Your task to perform on an android device: Turn on the flashlight Image 0: 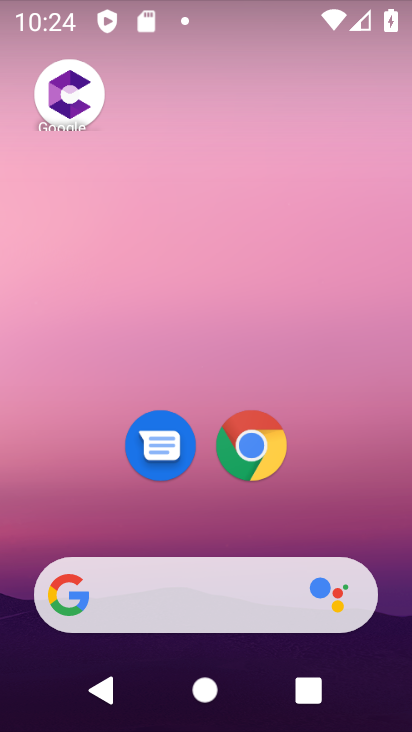
Step 0: drag from (218, 376) to (254, 176)
Your task to perform on an android device: Turn on the flashlight Image 1: 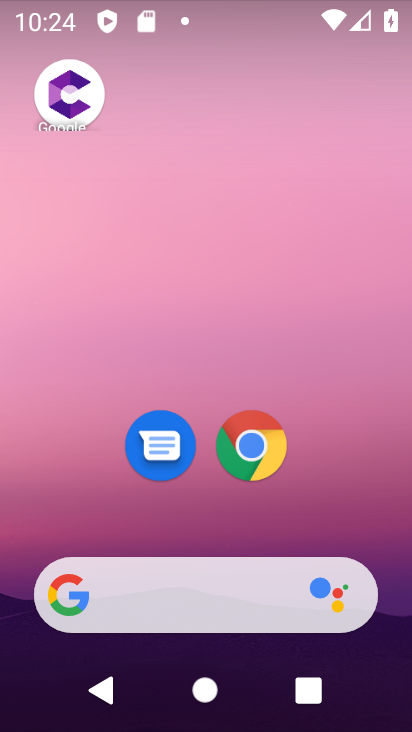
Step 1: drag from (205, 517) to (295, 99)
Your task to perform on an android device: Turn on the flashlight Image 2: 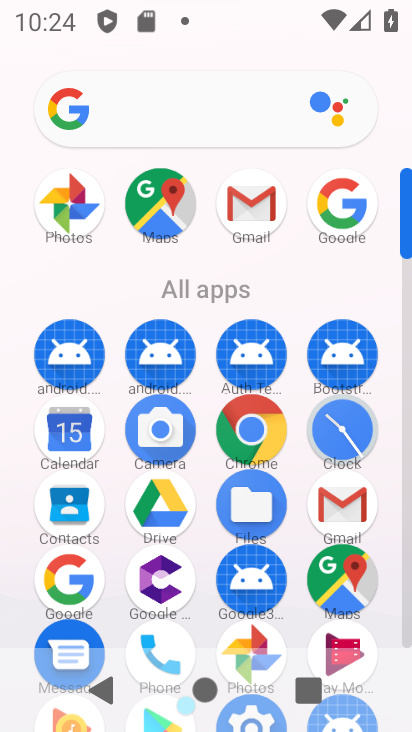
Step 2: drag from (302, 597) to (342, 270)
Your task to perform on an android device: Turn on the flashlight Image 3: 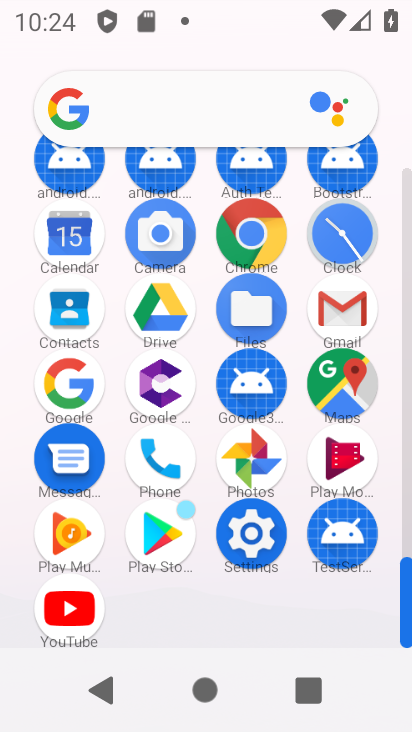
Step 3: click (256, 521)
Your task to perform on an android device: Turn on the flashlight Image 4: 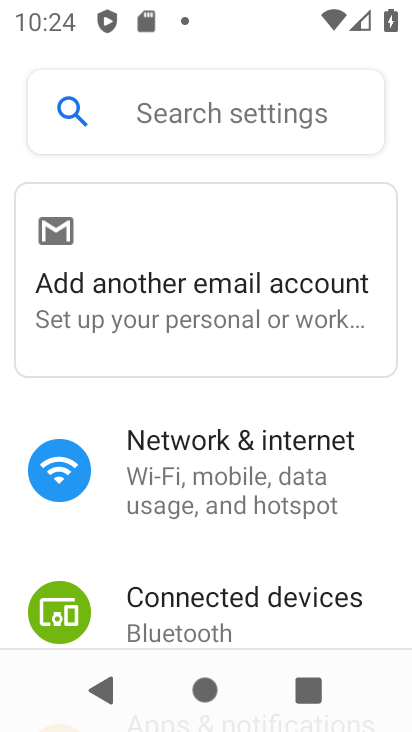
Step 4: drag from (167, 540) to (250, 282)
Your task to perform on an android device: Turn on the flashlight Image 5: 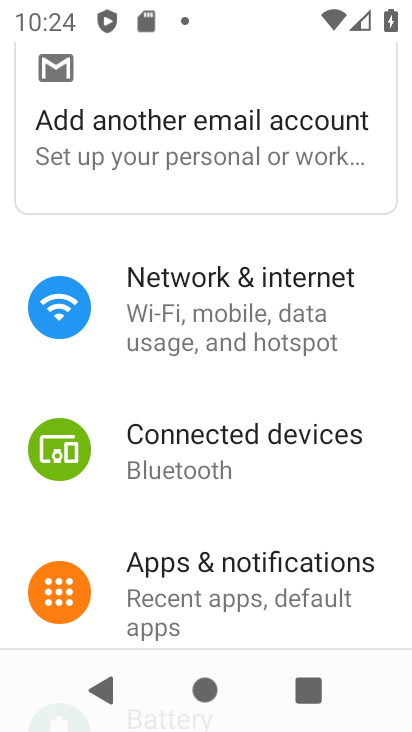
Step 5: drag from (239, 616) to (304, 277)
Your task to perform on an android device: Turn on the flashlight Image 6: 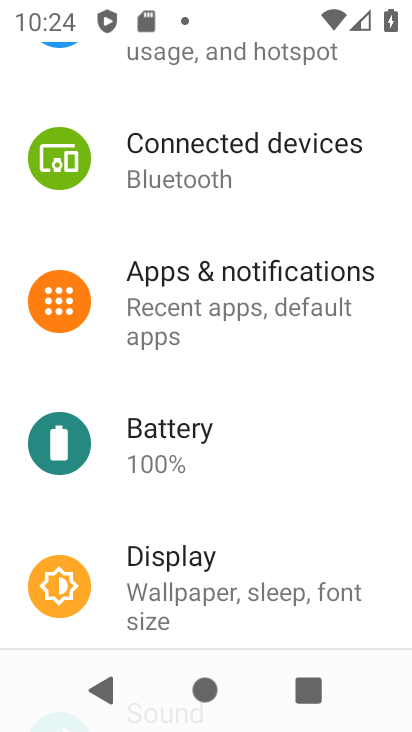
Step 6: click (200, 577)
Your task to perform on an android device: Turn on the flashlight Image 7: 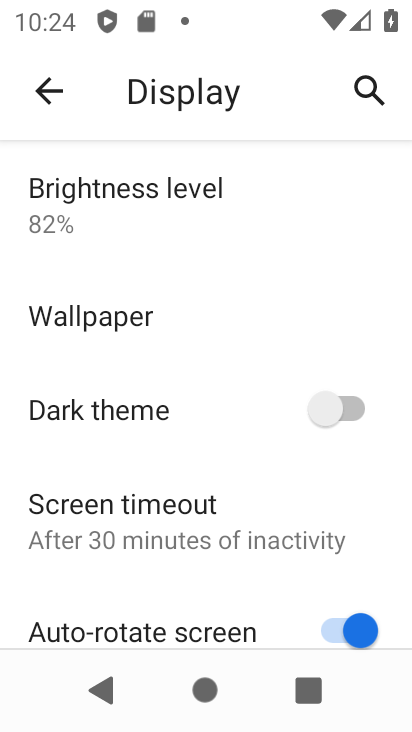
Step 7: task complete